Your task to perform on an android device: Open Google Maps Image 0: 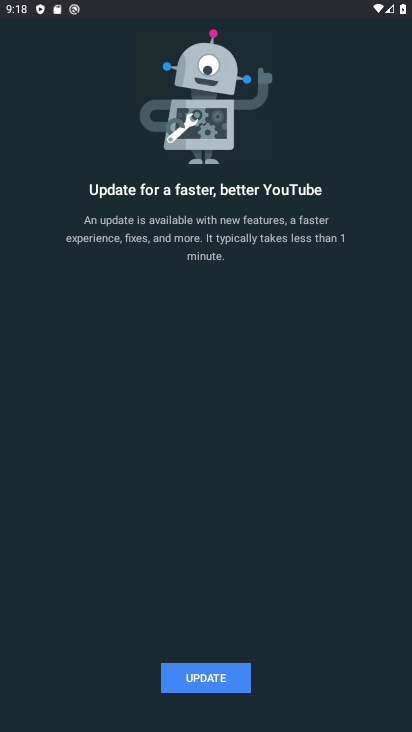
Step 0: press home button
Your task to perform on an android device: Open Google Maps Image 1: 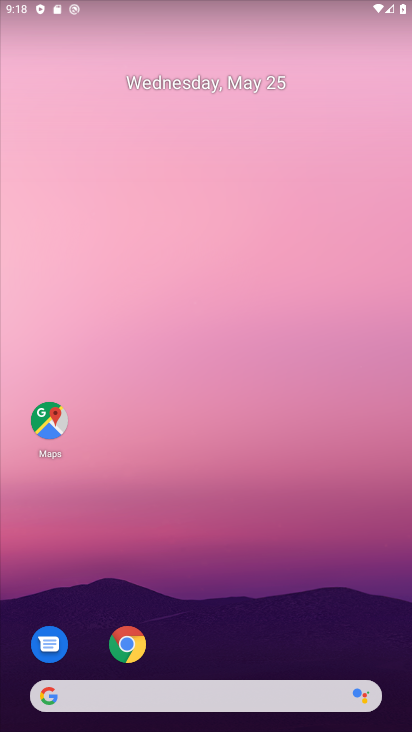
Step 1: click (47, 422)
Your task to perform on an android device: Open Google Maps Image 2: 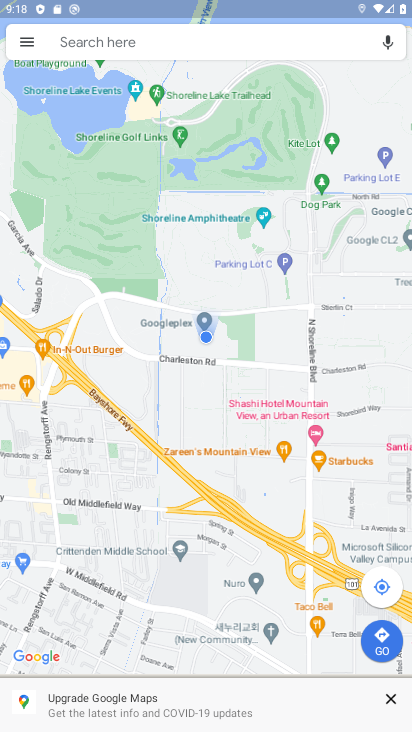
Step 2: task complete